Your task to perform on an android device: open app "Nova Launcher" Image 0: 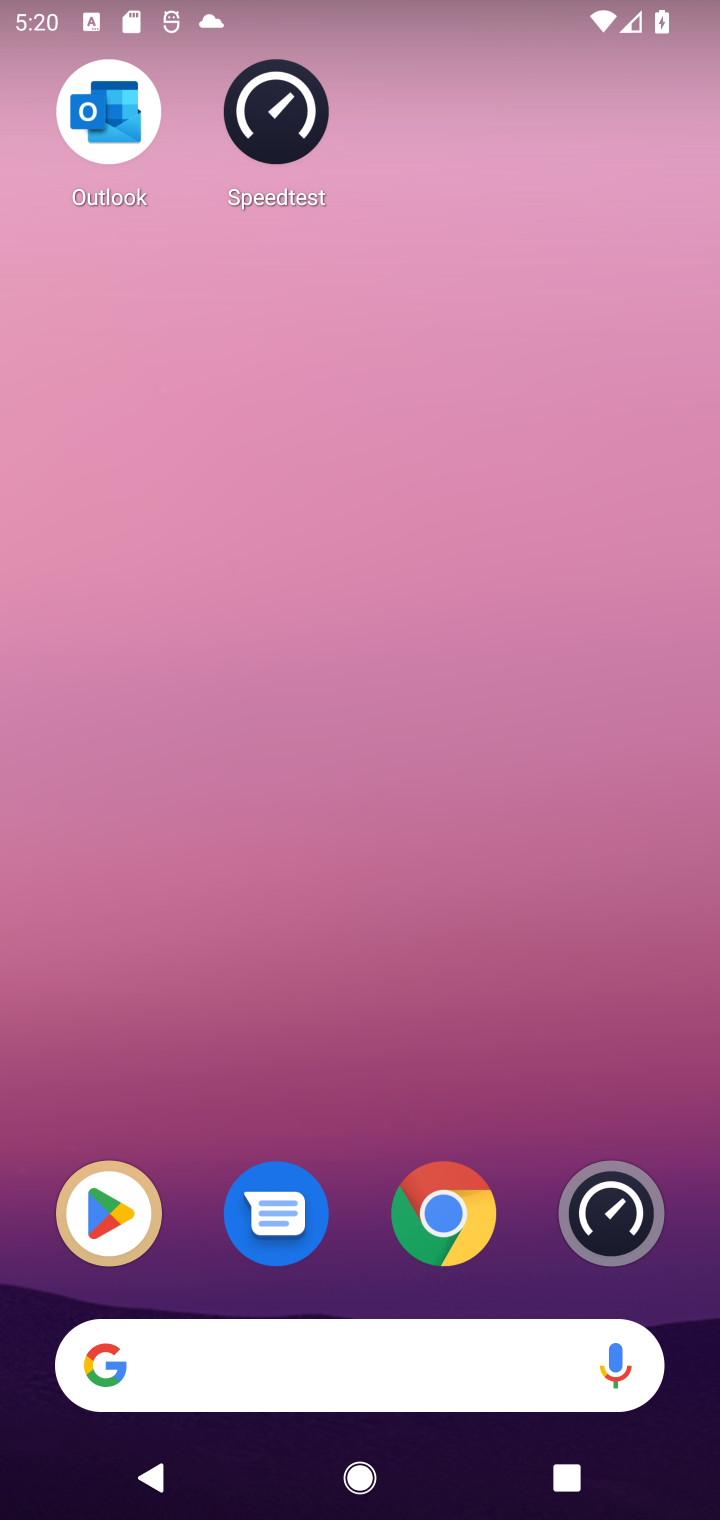
Step 0: drag from (573, 1033) to (601, 111)
Your task to perform on an android device: open app "Nova Launcher" Image 1: 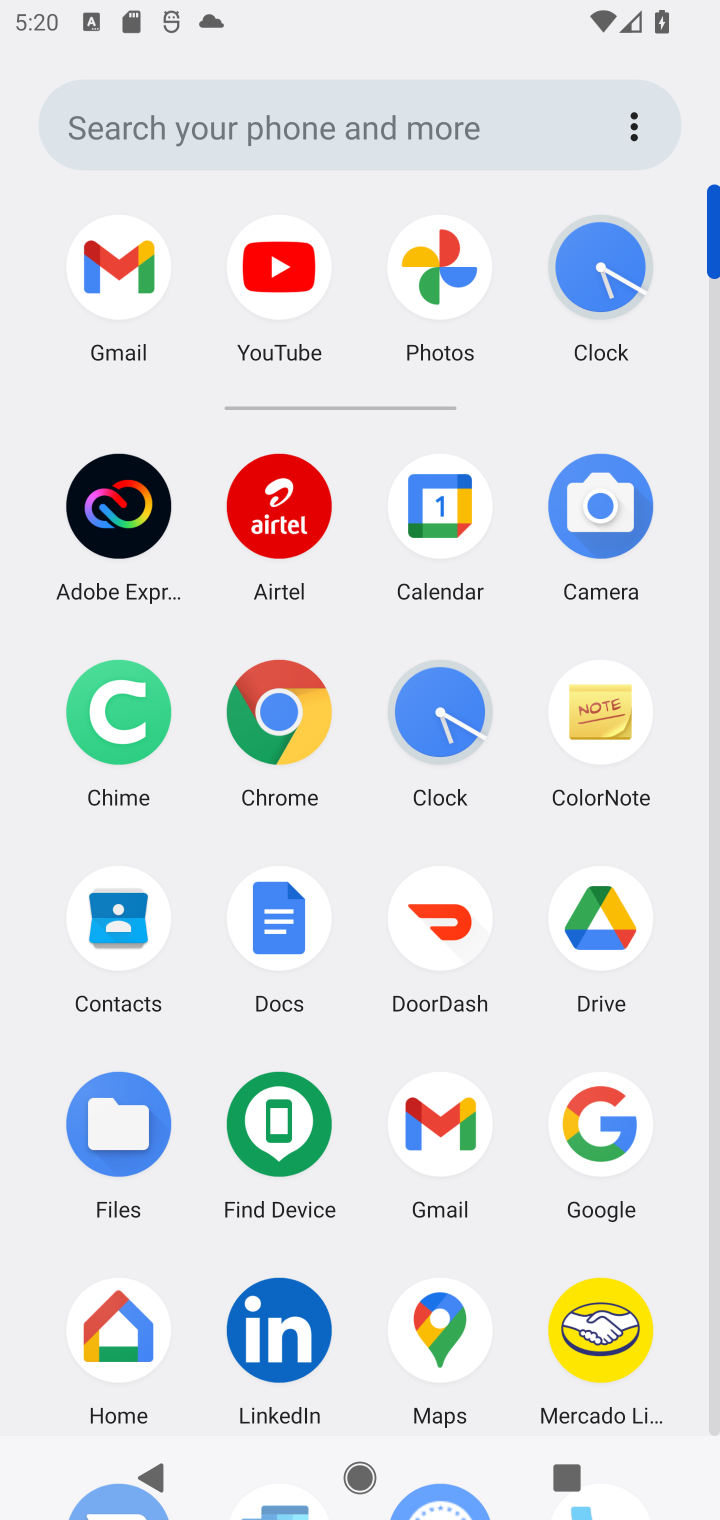
Step 1: drag from (365, 1224) to (462, 380)
Your task to perform on an android device: open app "Nova Launcher" Image 2: 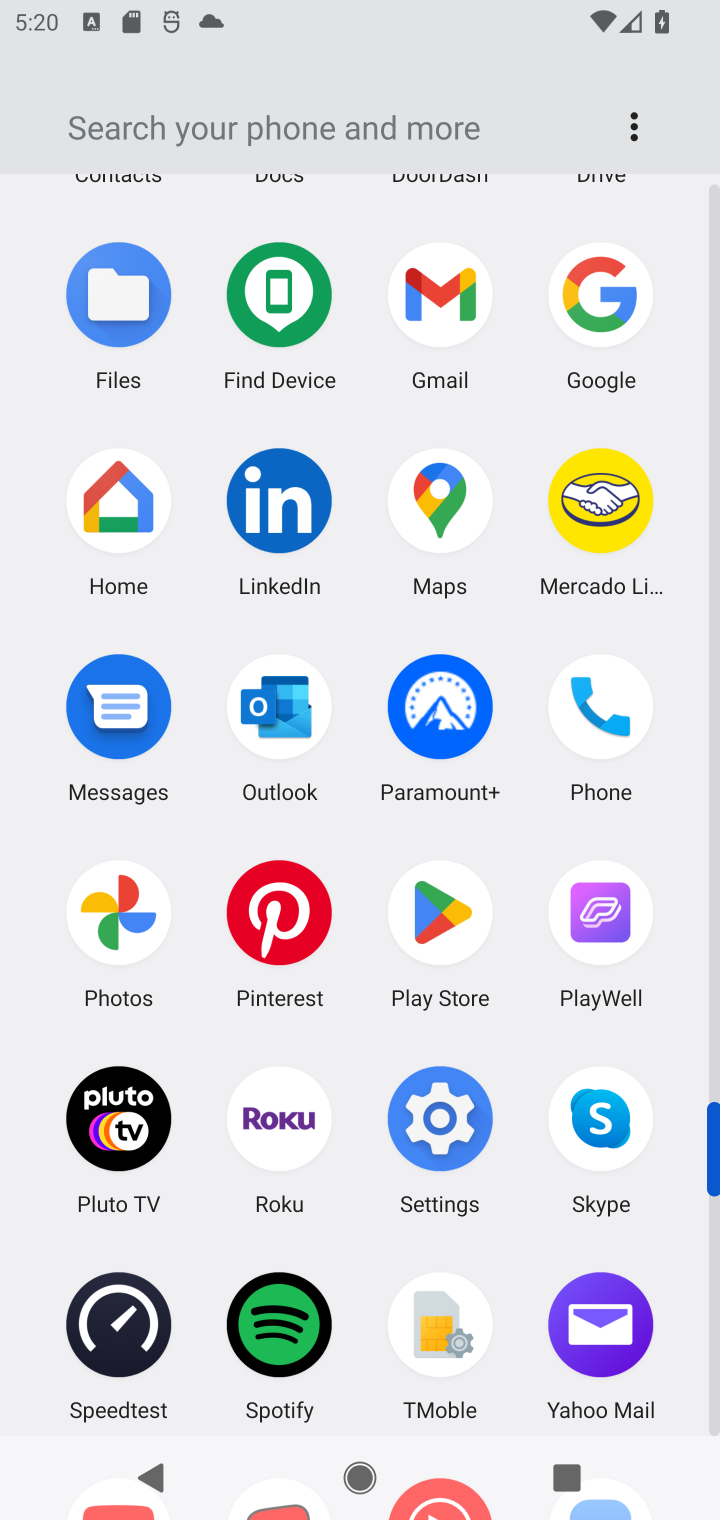
Step 2: click (449, 901)
Your task to perform on an android device: open app "Nova Launcher" Image 3: 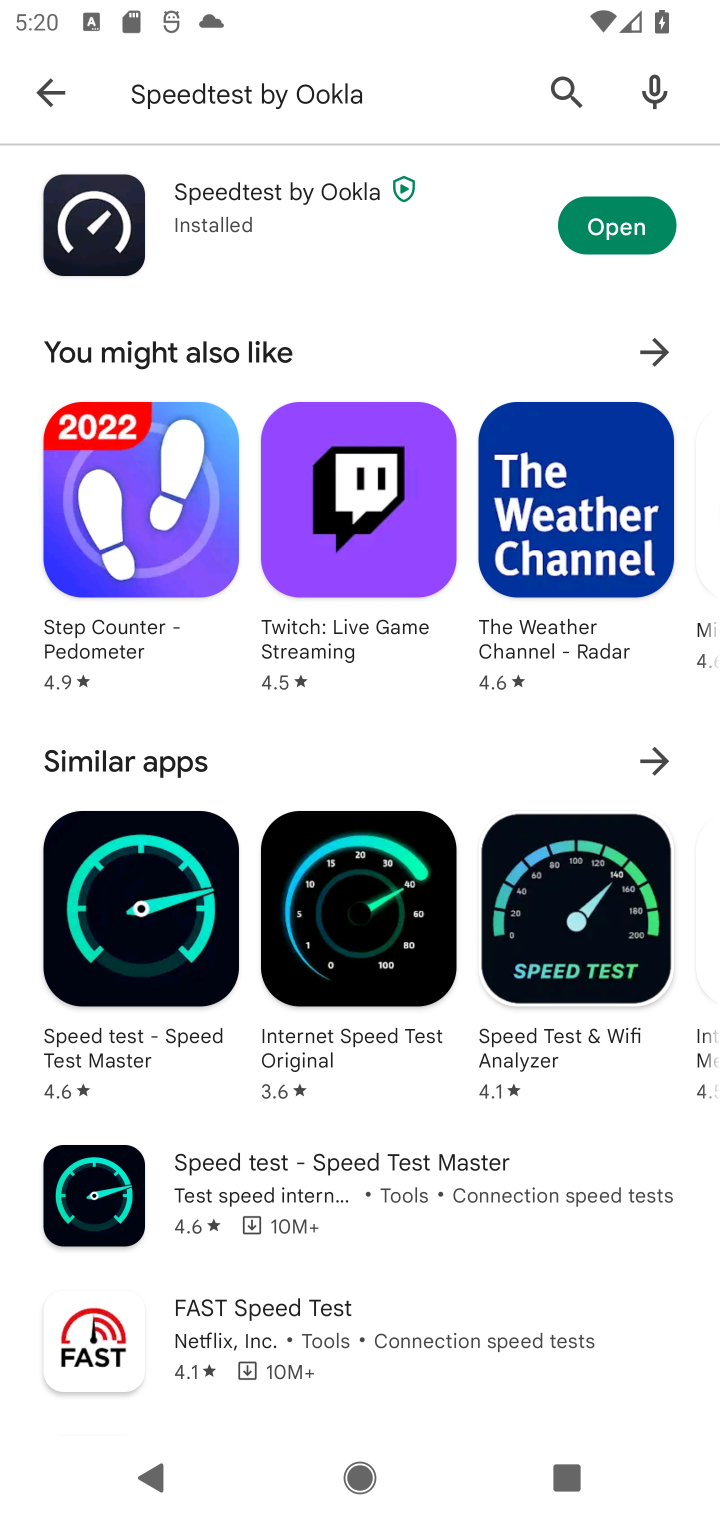
Step 3: click (437, 91)
Your task to perform on an android device: open app "Nova Launcher" Image 4: 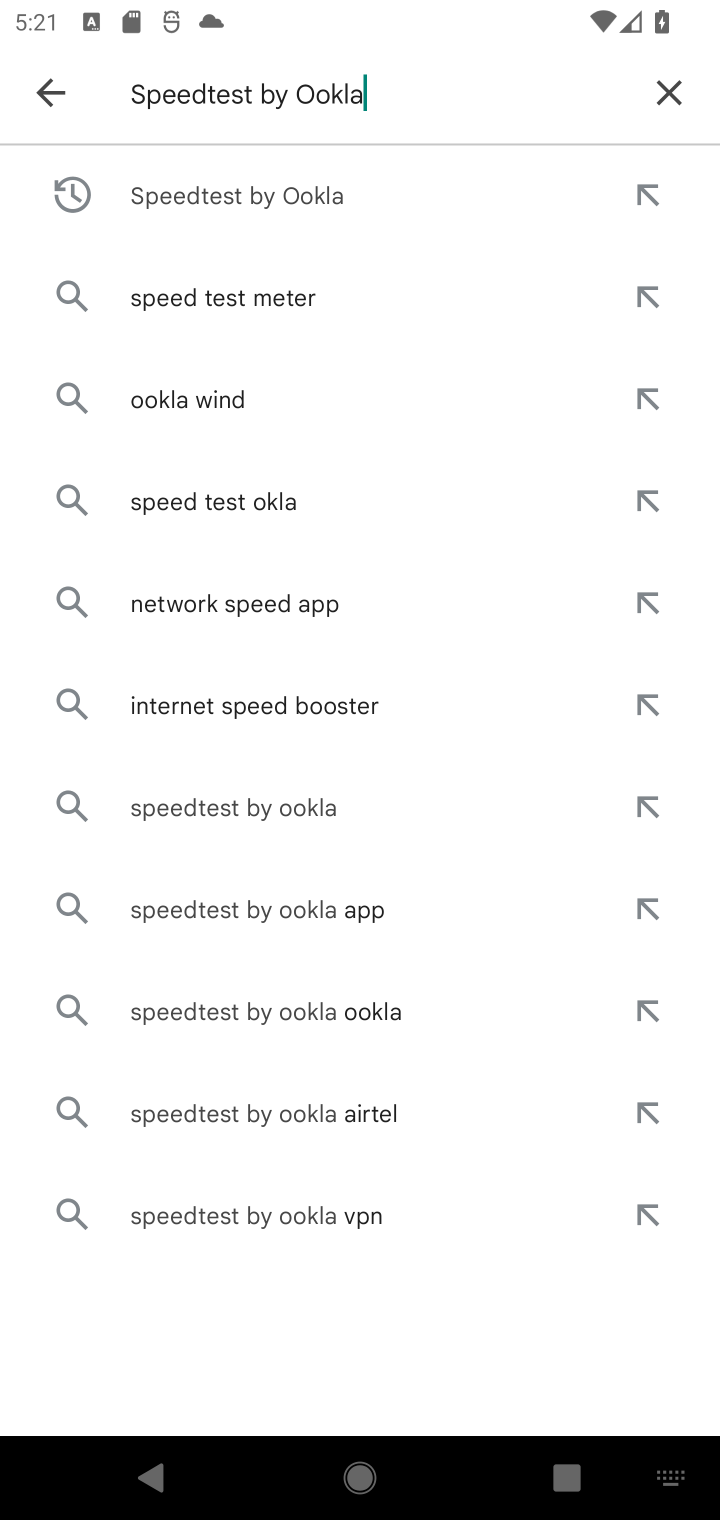
Step 4: click (661, 100)
Your task to perform on an android device: open app "Nova Launcher" Image 5: 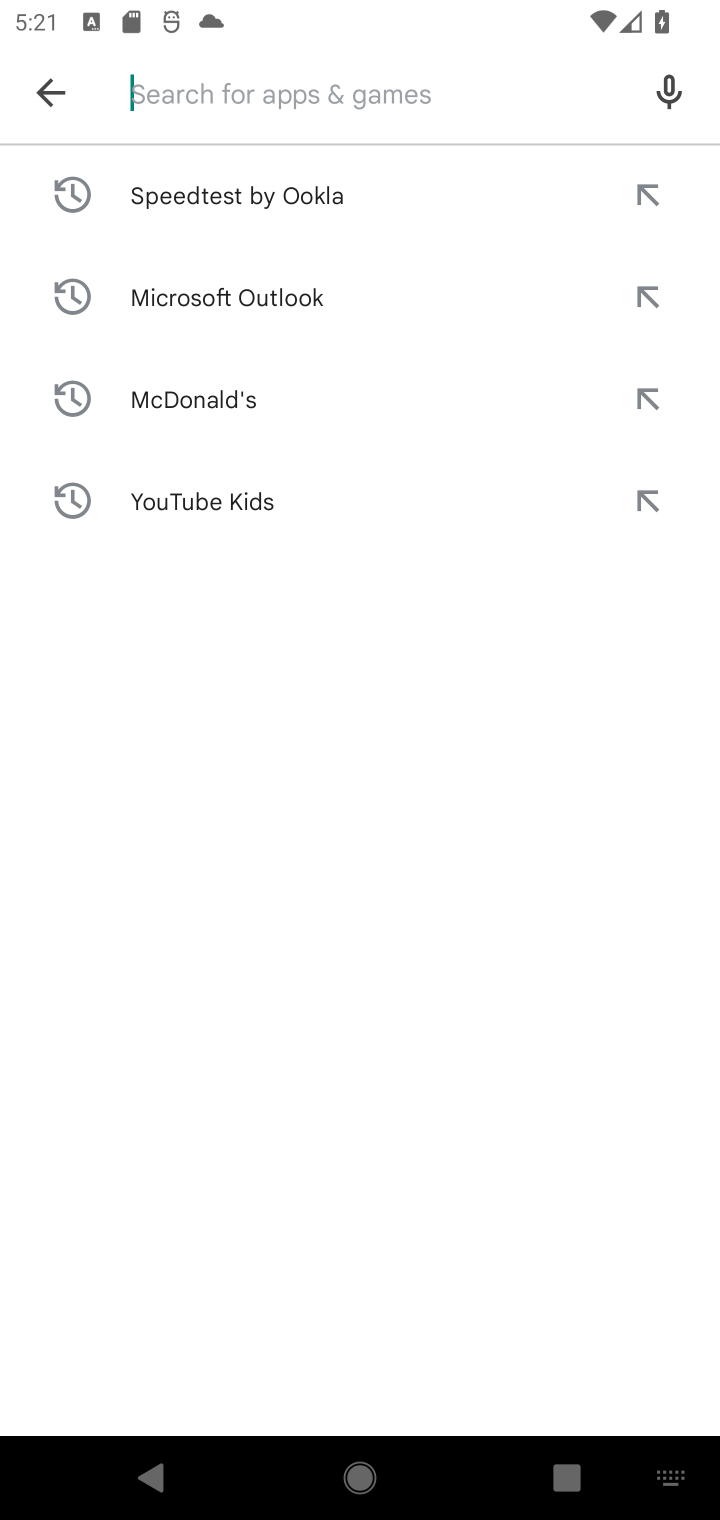
Step 5: type "Nova Launcher"
Your task to perform on an android device: open app "Nova Launcher" Image 6: 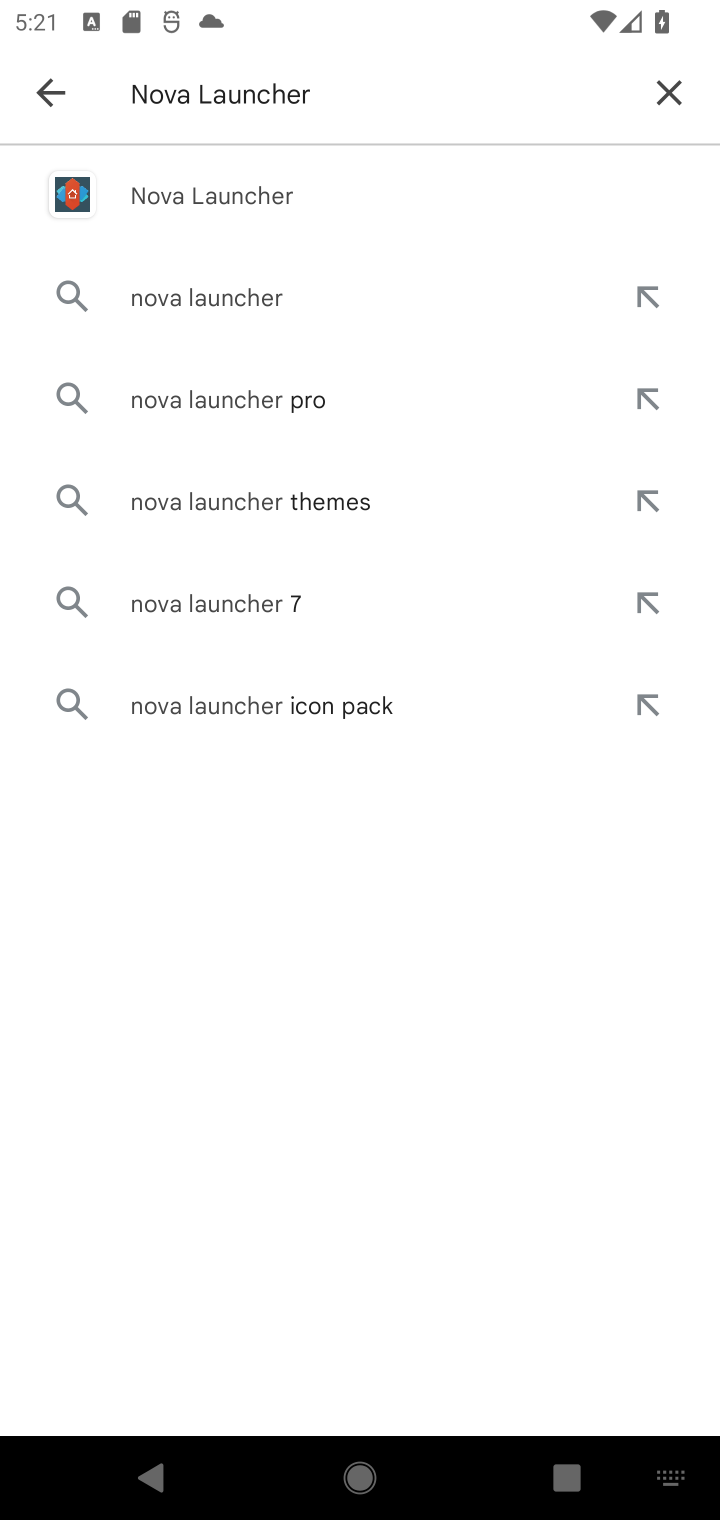
Step 6: press enter
Your task to perform on an android device: open app "Nova Launcher" Image 7: 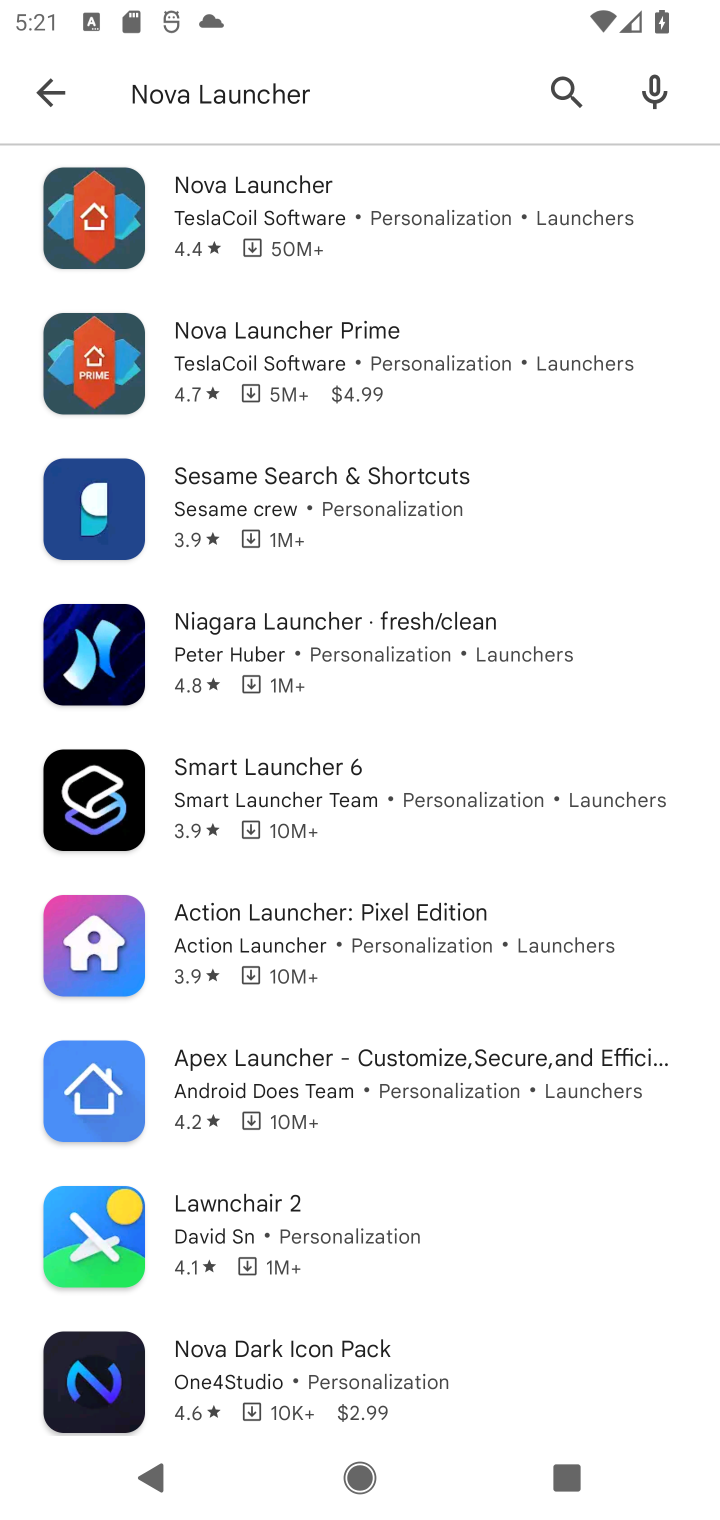
Step 7: click (283, 204)
Your task to perform on an android device: open app "Nova Launcher" Image 8: 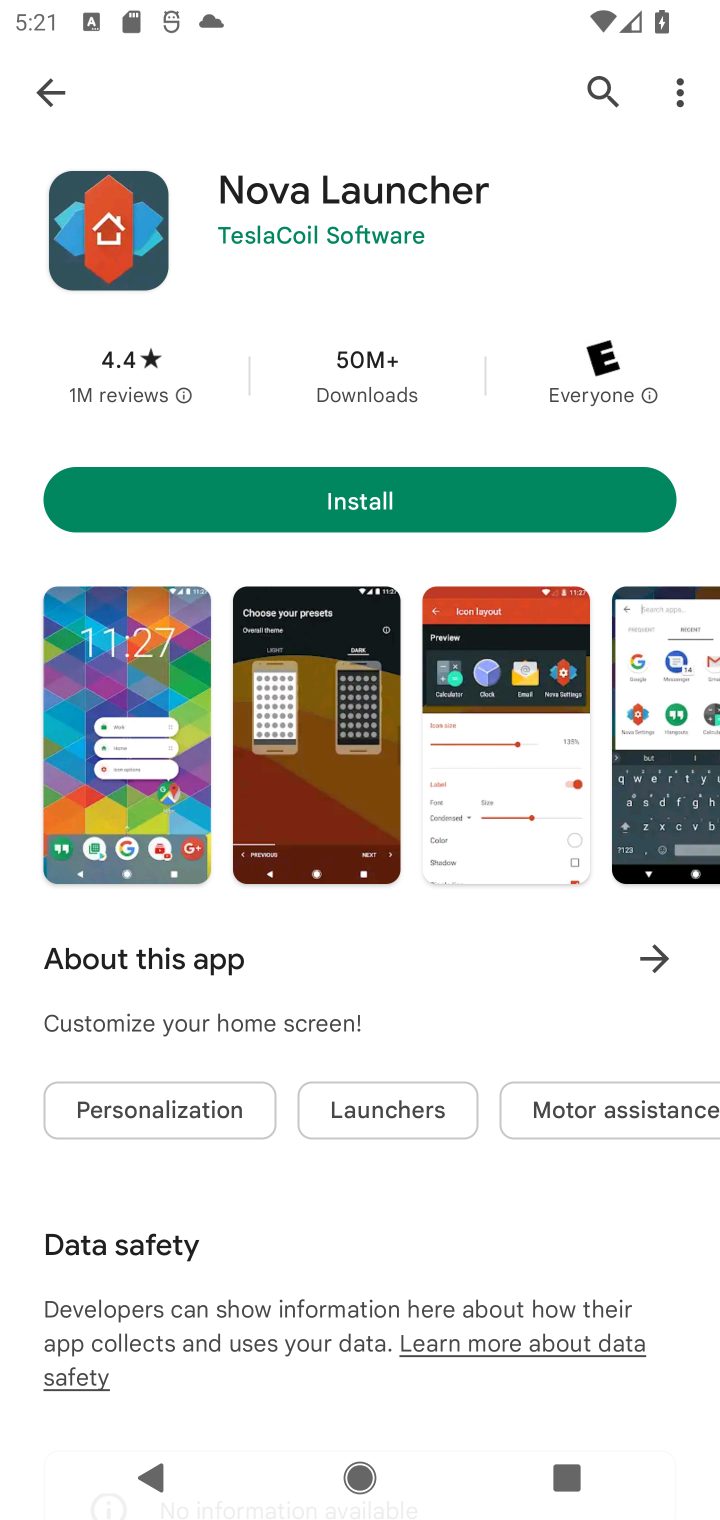
Step 8: task complete